Your task to perform on an android device: turn off wifi Image 0: 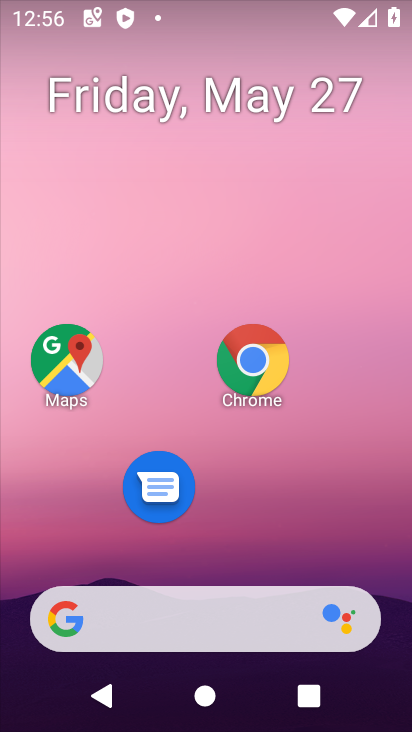
Step 0: drag from (222, 549) to (261, 129)
Your task to perform on an android device: turn off wifi Image 1: 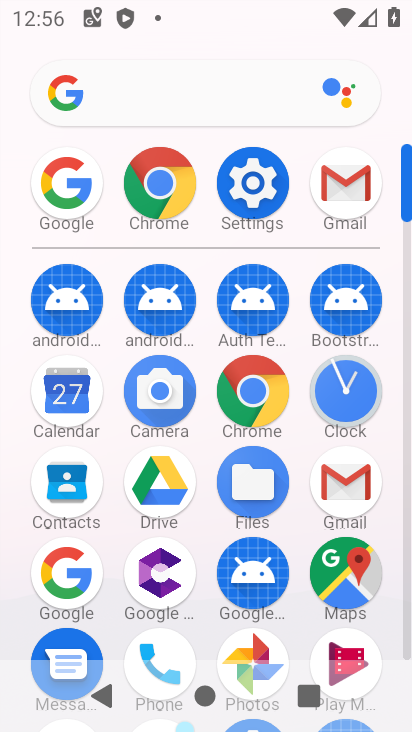
Step 1: click (252, 188)
Your task to perform on an android device: turn off wifi Image 2: 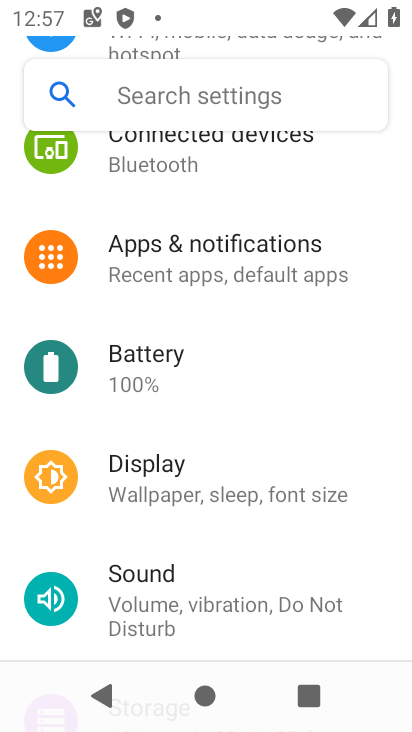
Step 2: drag from (184, 176) to (308, 624)
Your task to perform on an android device: turn off wifi Image 3: 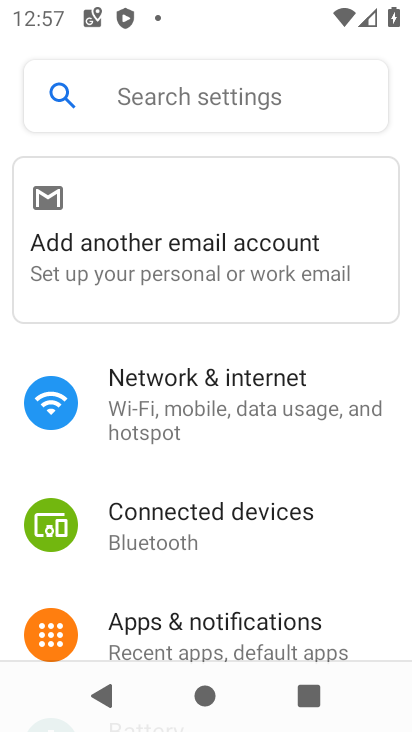
Step 3: click (194, 400)
Your task to perform on an android device: turn off wifi Image 4: 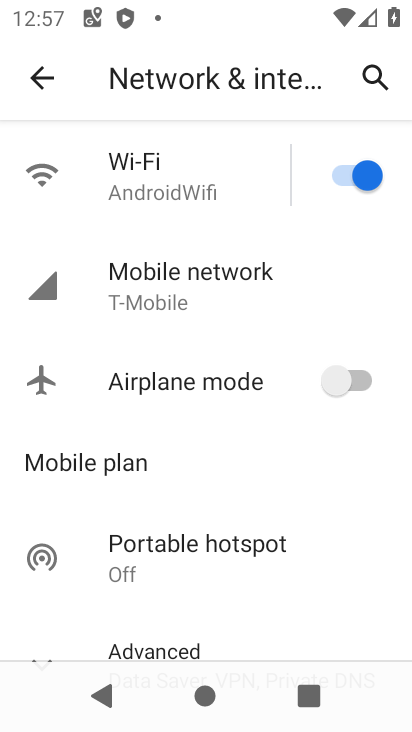
Step 4: click (363, 175)
Your task to perform on an android device: turn off wifi Image 5: 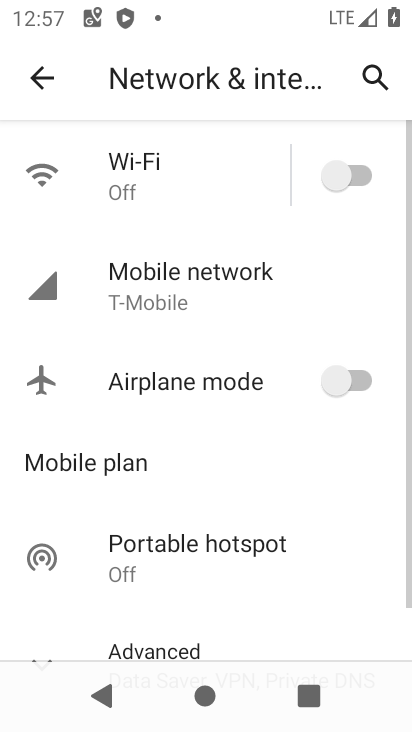
Step 5: task complete